Your task to perform on an android device: manage bookmarks in the chrome app Image 0: 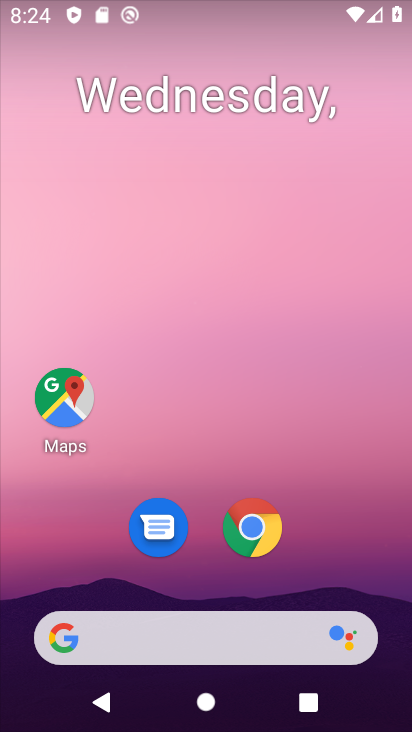
Step 0: click (259, 532)
Your task to perform on an android device: manage bookmarks in the chrome app Image 1: 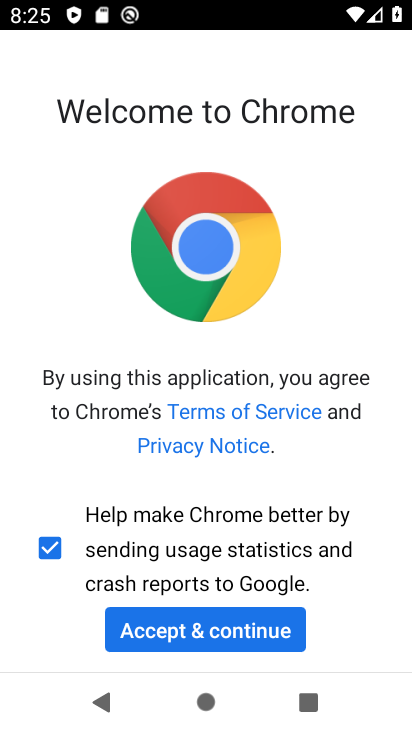
Step 1: click (263, 624)
Your task to perform on an android device: manage bookmarks in the chrome app Image 2: 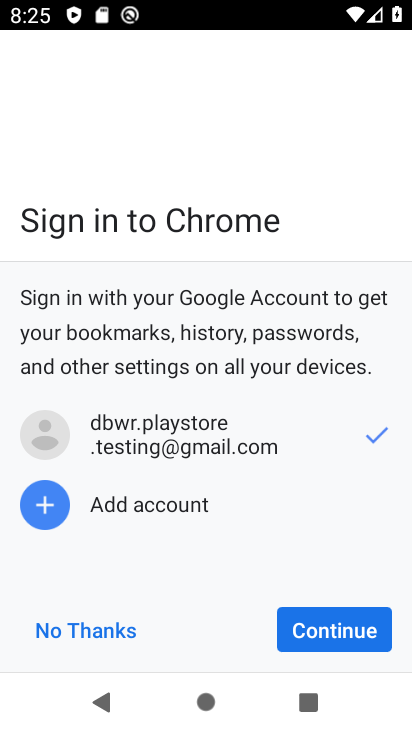
Step 2: click (325, 630)
Your task to perform on an android device: manage bookmarks in the chrome app Image 3: 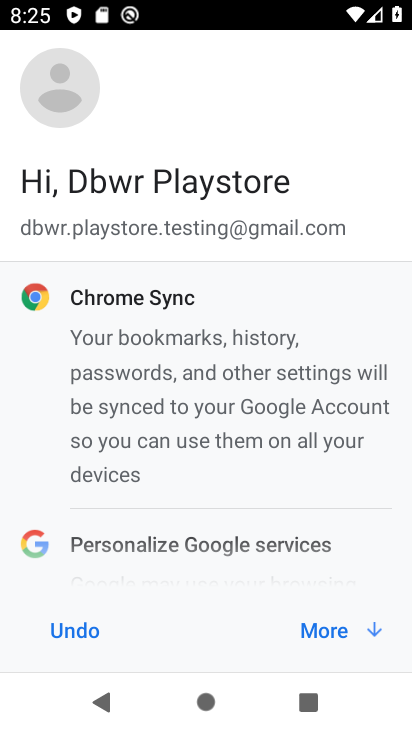
Step 3: click (325, 630)
Your task to perform on an android device: manage bookmarks in the chrome app Image 4: 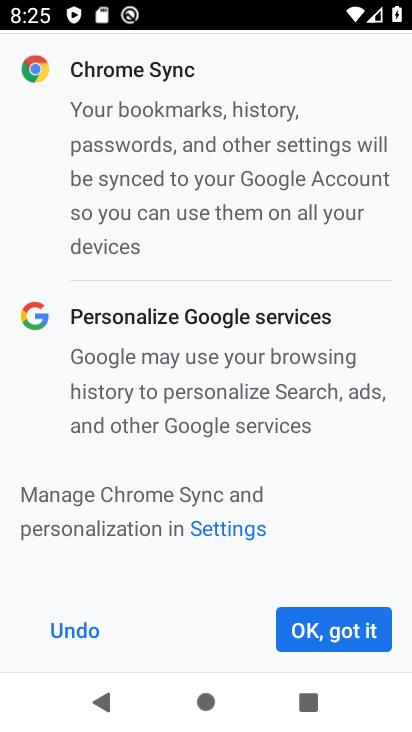
Step 4: click (325, 630)
Your task to perform on an android device: manage bookmarks in the chrome app Image 5: 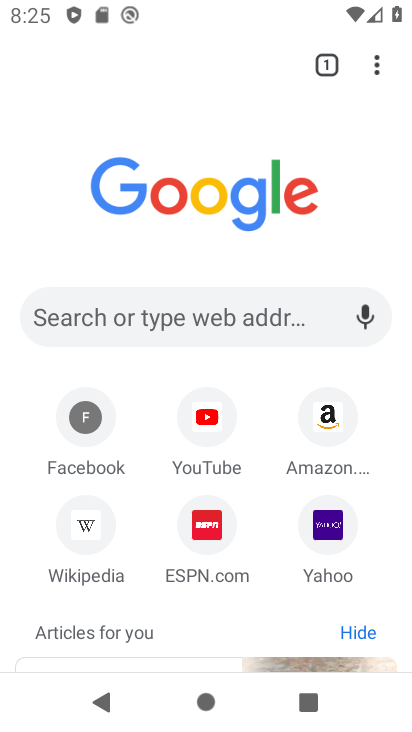
Step 5: drag from (381, 66) to (216, 260)
Your task to perform on an android device: manage bookmarks in the chrome app Image 6: 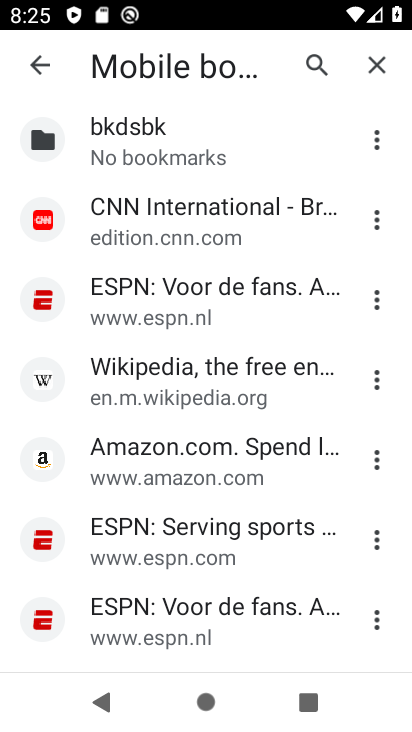
Step 6: click (368, 208)
Your task to perform on an android device: manage bookmarks in the chrome app Image 7: 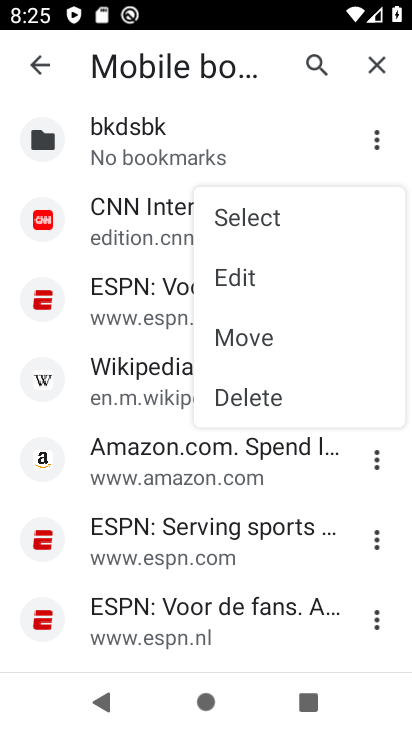
Step 7: click (376, 215)
Your task to perform on an android device: manage bookmarks in the chrome app Image 8: 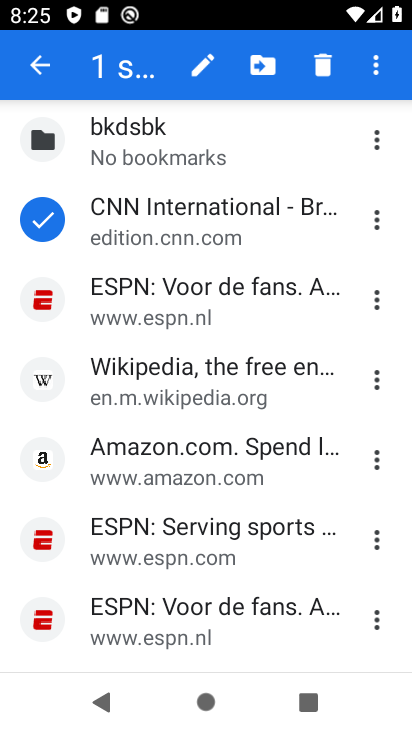
Step 8: drag from (376, 215) to (336, 58)
Your task to perform on an android device: manage bookmarks in the chrome app Image 9: 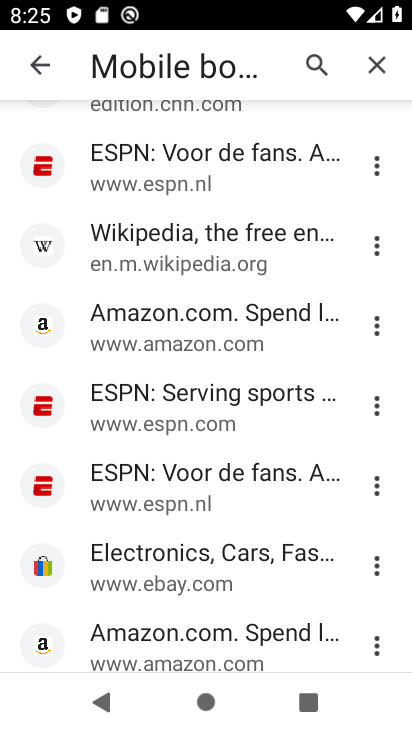
Step 9: click (376, 240)
Your task to perform on an android device: manage bookmarks in the chrome app Image 10: 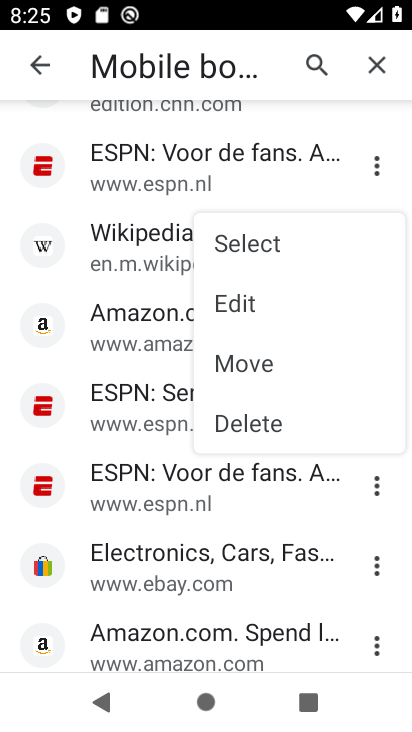
Step 10: click (239, 422)
Your task to perform on an android device: manage bookmarks in the chrome app Image 11: 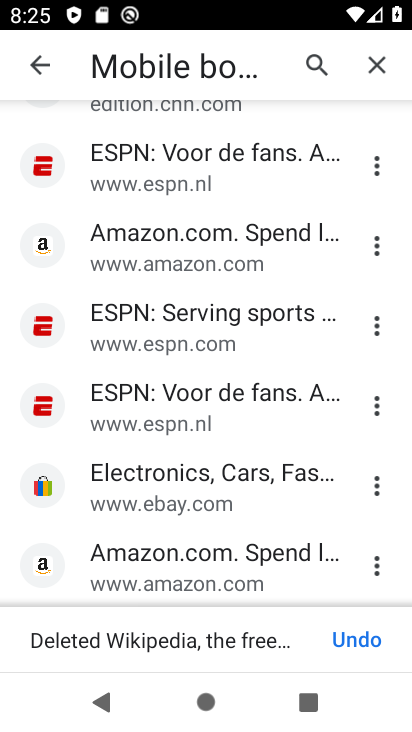
Step 11: task complete